Your task to perform on an android device: toggle airplane mode Image 0: 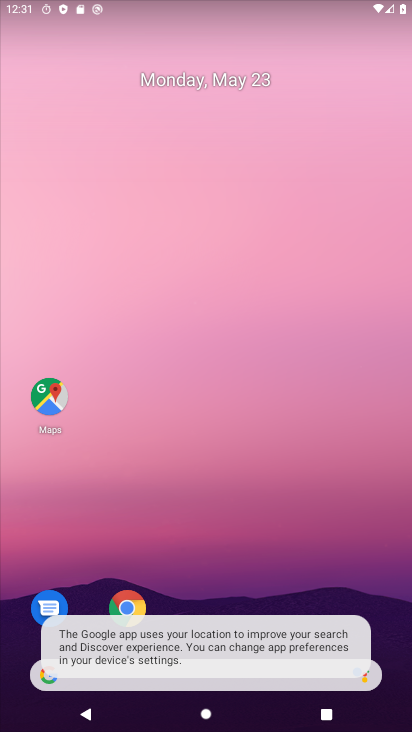
Step 0: drag from (239, 551) to (249, 166)
Your task to perform on an android device: toggle airplane mode Image 1: 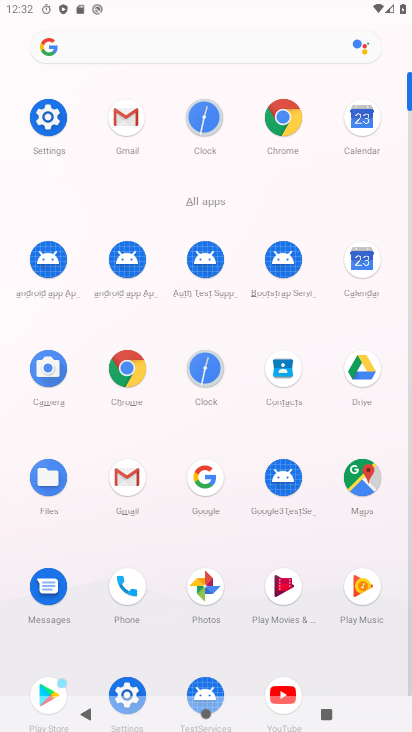
Step 1: click (45, 117)
Your task to perform on an android device: toggle airplane mode Image 2: 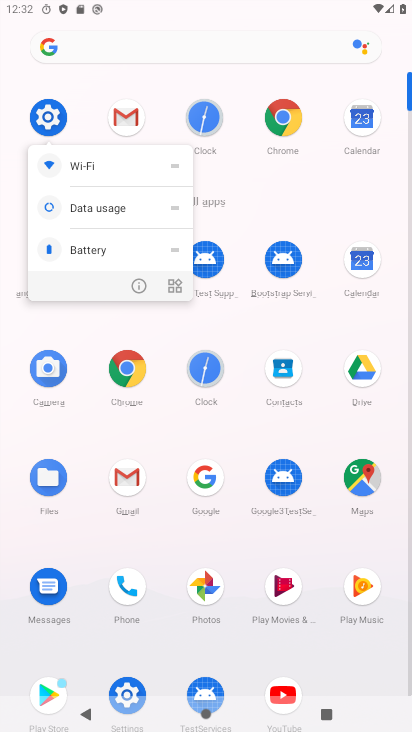
Step 2: click (45, 117)
Your task to perform on an android device: toggle airplane mode Image 3: 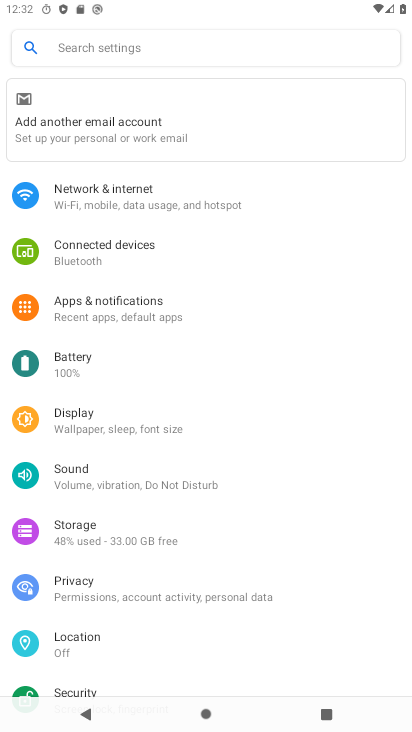
Step 3: click (197, 207)
Your task to perform on an android device: toggle airplane mode Image 4: 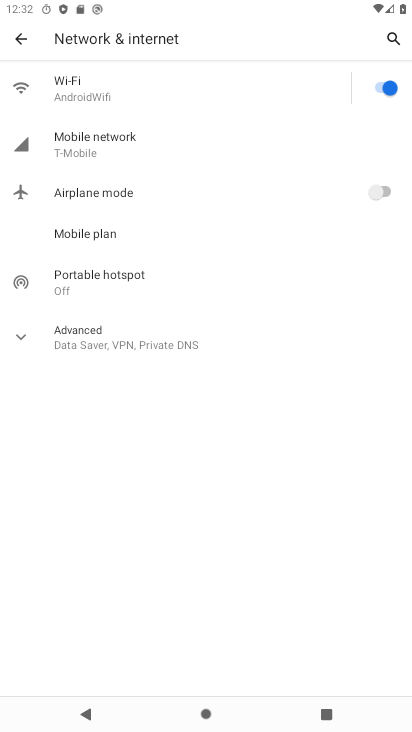
Step 4: click (389, 194)
Your task to perform on an android device: toggle airplane mode Image 5: 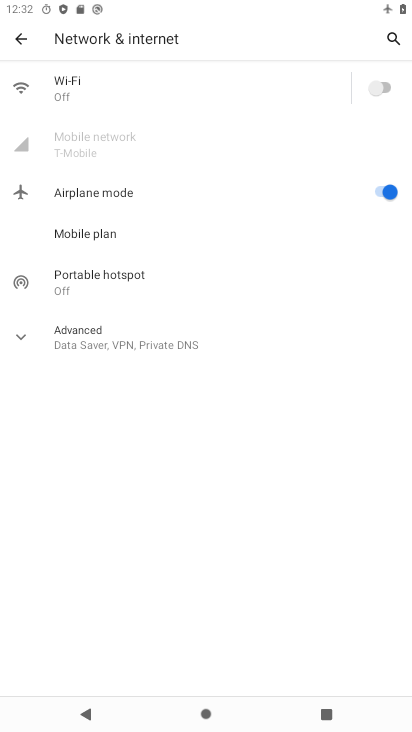
Step 5: task complete